Your task to perform on an android device: turn on airplane mode Image 0: 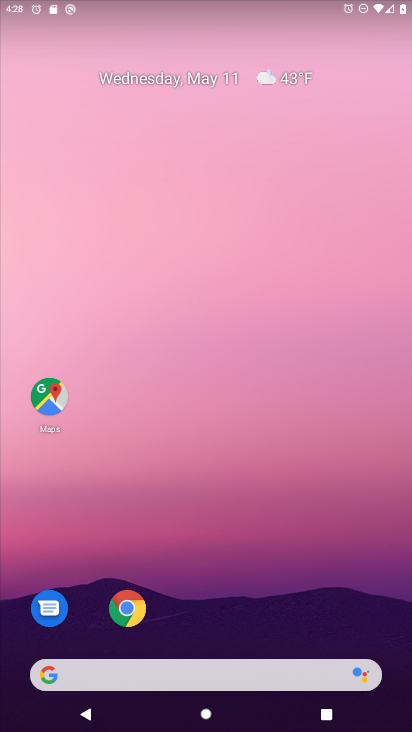
Step 0: drag from (228, 729) to (219, 250)
Your task to perform on an android device: turn on airplane mode Image 1: 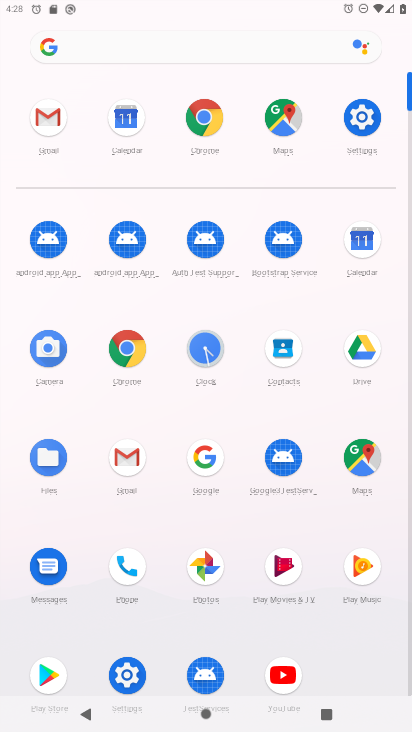
Step 1: click (369, 113)
Your task to perform on an android device: turn on airplane mode Image 2: 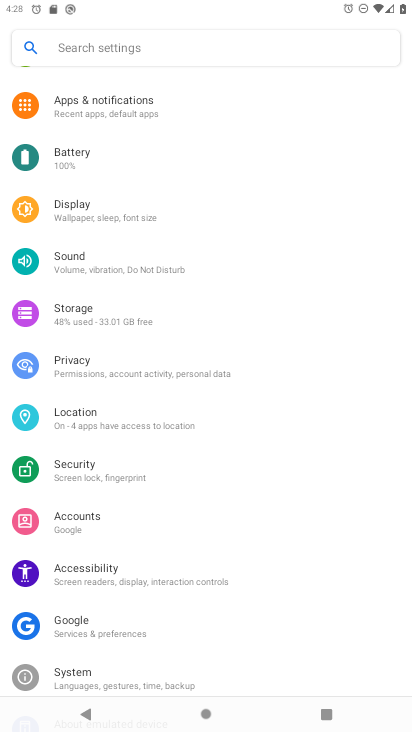
Step 2: drag from (145, 140) to (182, 603)
Your task to perform on an android device: turn on airplane mode Image 3: 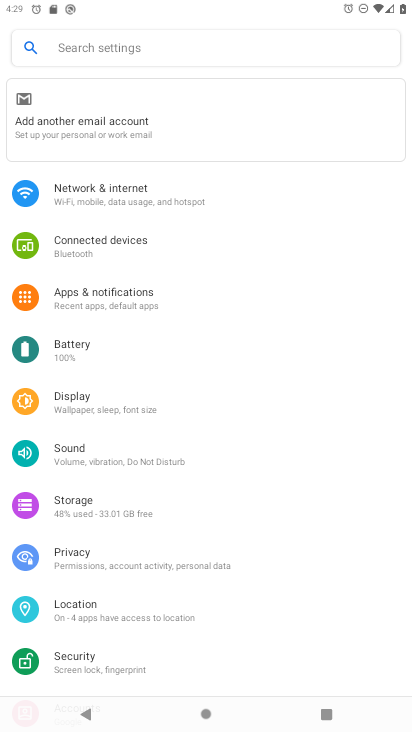
Step 3: click (101, 202)
Your task to perform on an android device: turn on airplane mode Image 4: 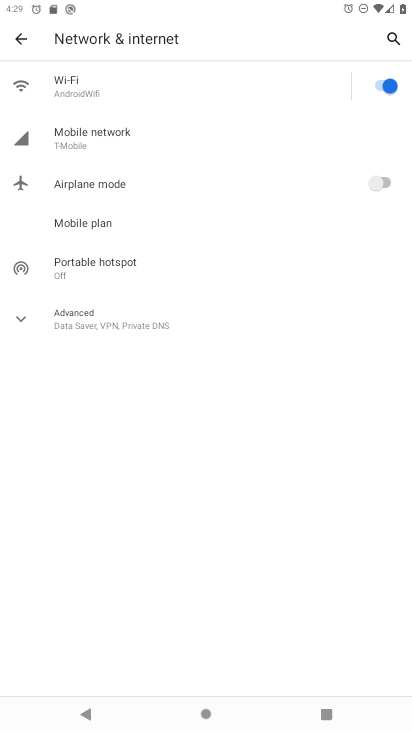
Step 4: click (384, 182)
Your task to perform on an android device: turn on airplane mode Image 5: 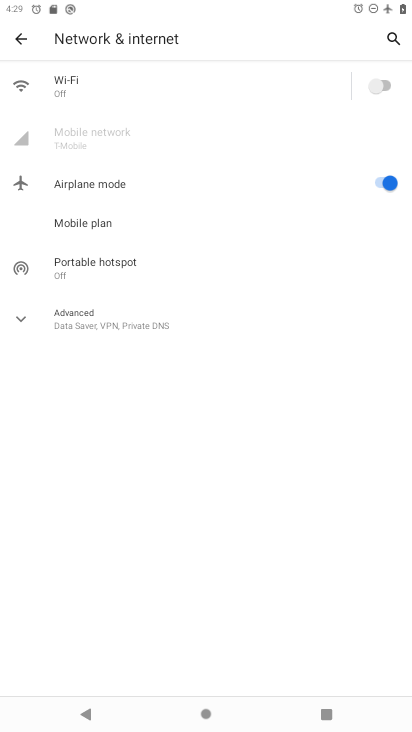
Step 5: task complete